Your task to perform on an android device: Open Google Maps and go to "Timeline" Image 0: 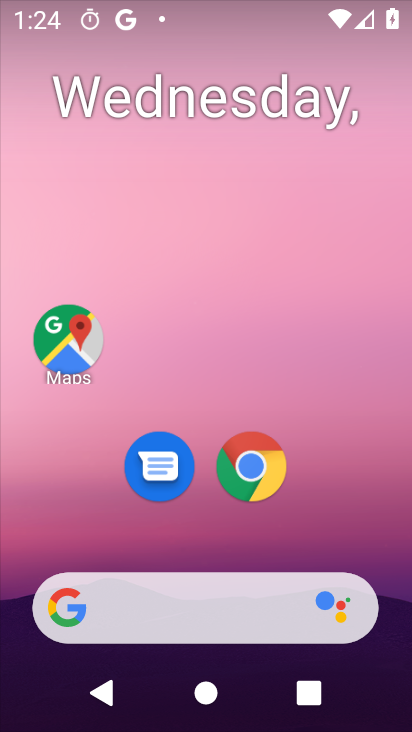
Step 0: click (44, 336)
Your task to perform on an android device: Open Google Maps and go to "Timeline" Image 1: 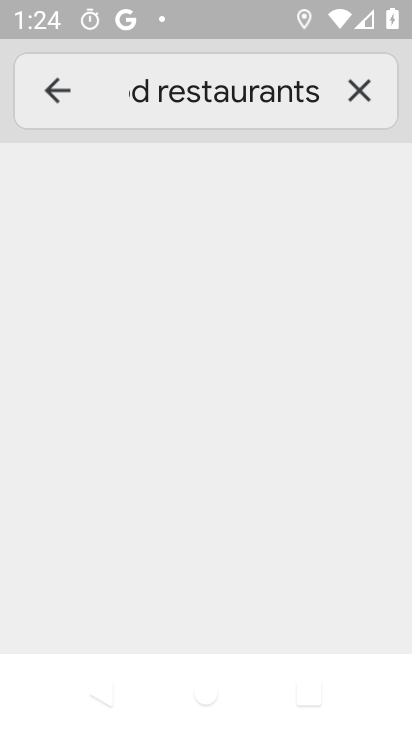
Step 1: click (337, 78)
Your task to perform on an android device: Open Google Maps and go to "Timeline" Image 2: 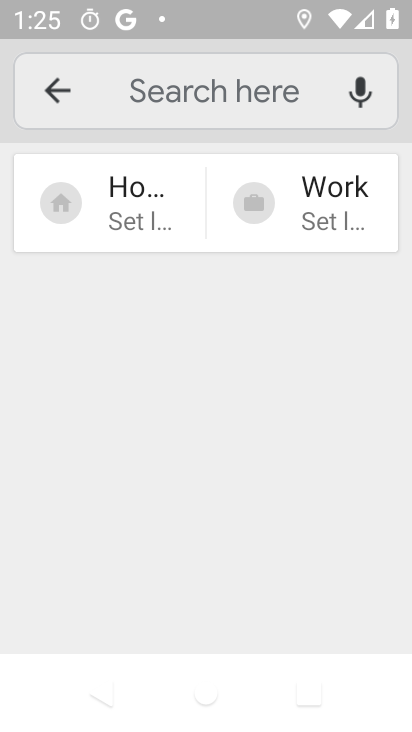
Step 2: type "Timeline"
Your task to perform on an android device: Open Google Maps and go to "Timeline" Image 3: 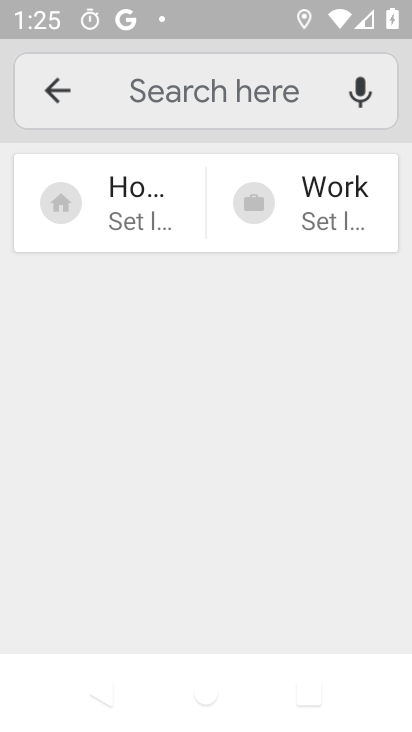
Step 3: click (278, 104)
Your task to perform on an android device: Open Google Maps and go to "Timeline" Image 4: 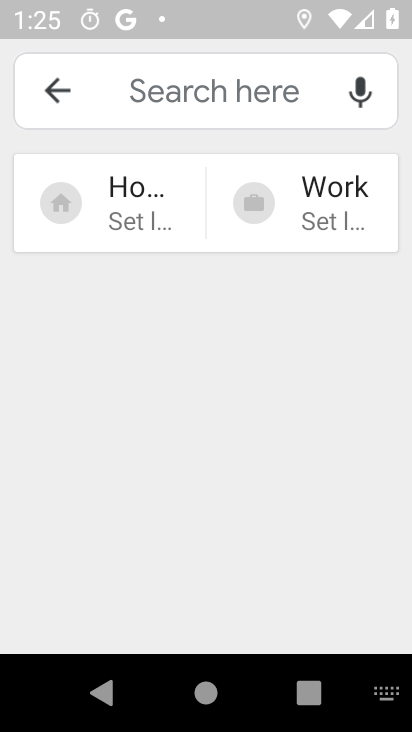
Step 4: type "Timeline"
Your task to perform on an android device: Open Google Maps and go to "Timeline" Image 5: 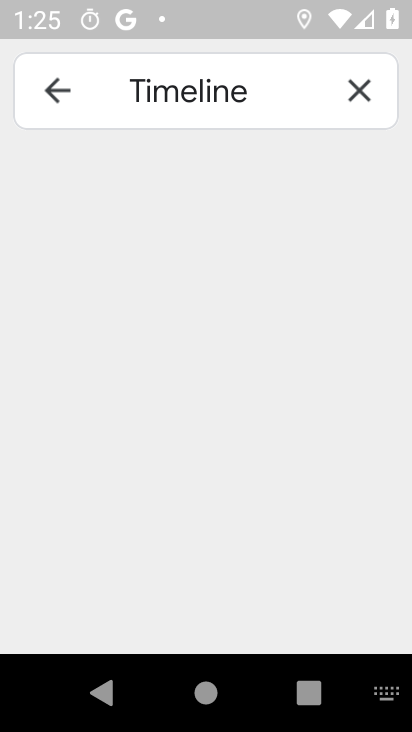
Step 5: click (239, 95)
Your task to perform on an android device: Open Google Maps and go to "Timeline" Image 6: 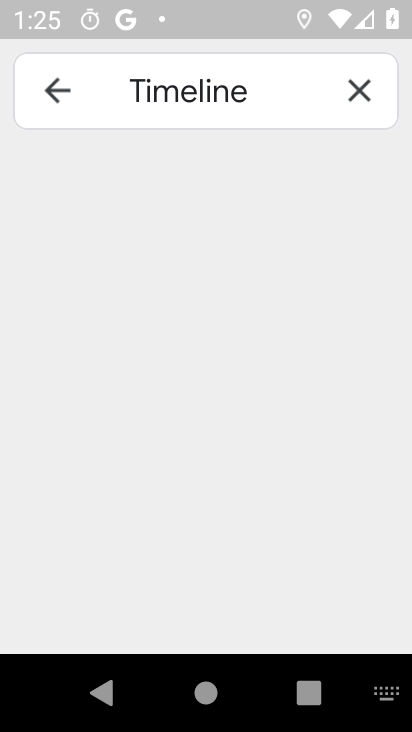
Step 6: task complete